Your task to perform on an android device: open device folders in google photos Image 0: 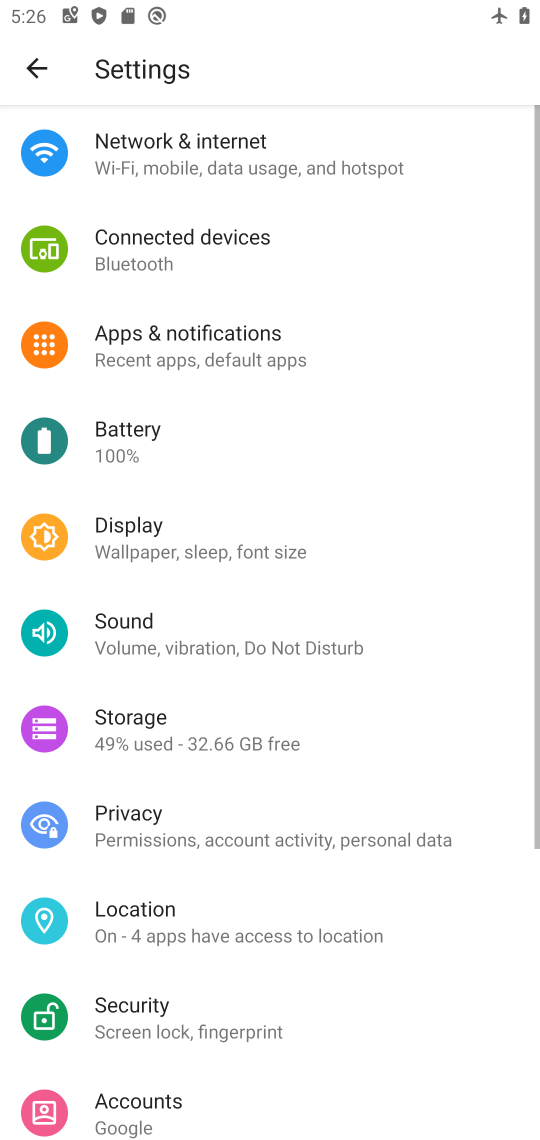
Step 0: press home button
Your task to perform on an android device: open device folders in google photos Image 1: 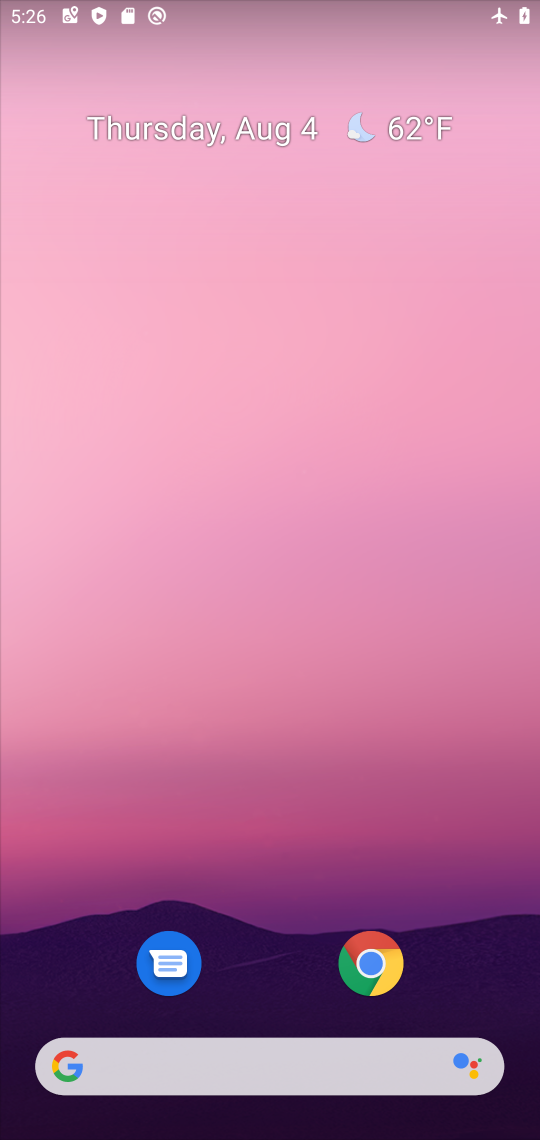
Step 1: drag from (280, 841) to (273, 145)
Your task to perform on an android device: open device folders in google photos Image 2: 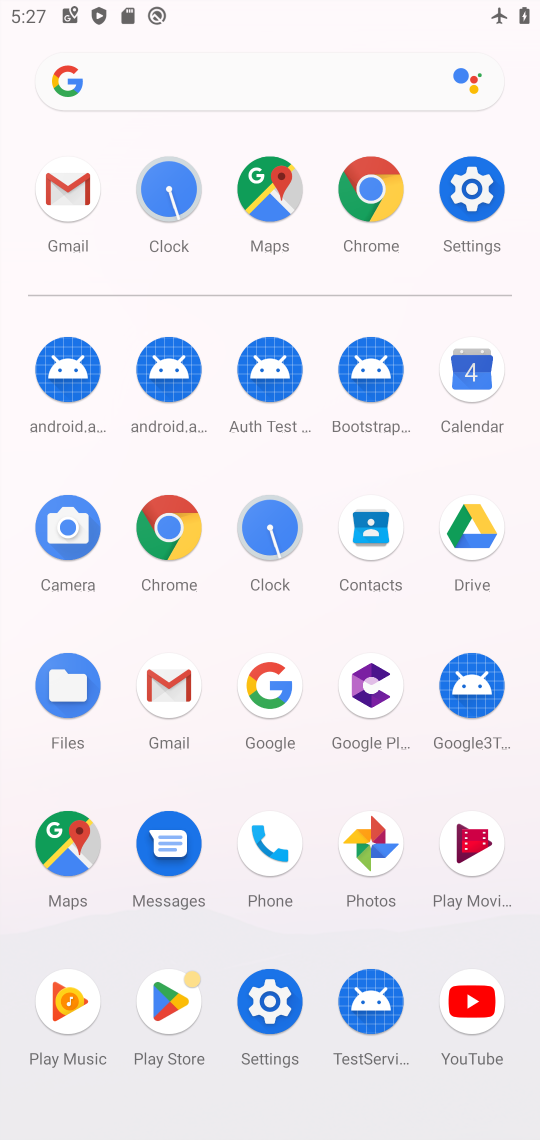
Step 2: click (372, 847)
Your task to perform on an android device: open device folders in google photos Image 3: 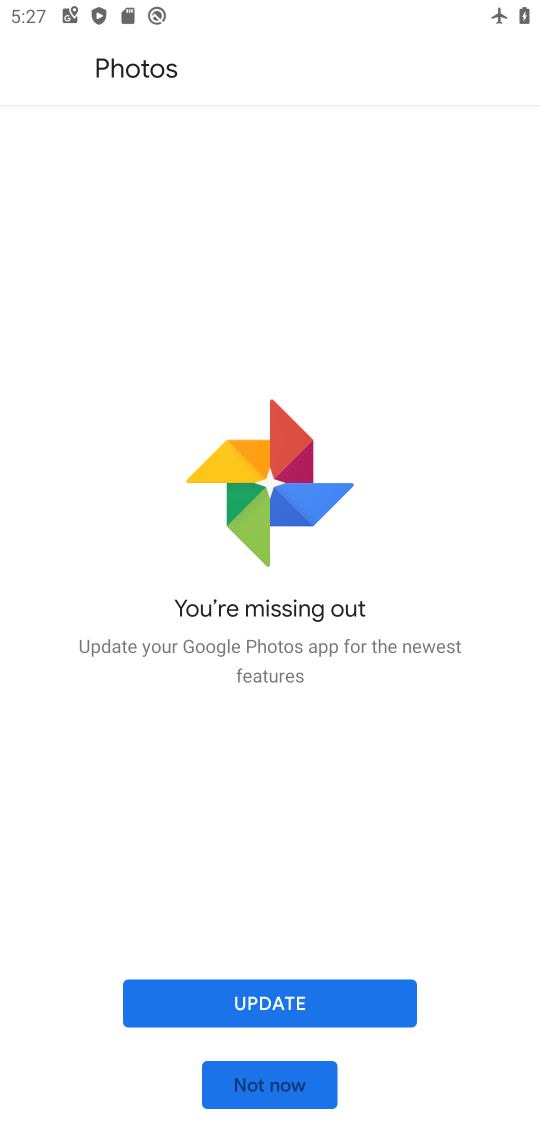
Step 3: click (277, 1006)
Your task to perform on an android device: open device folders in google photos Image 4: 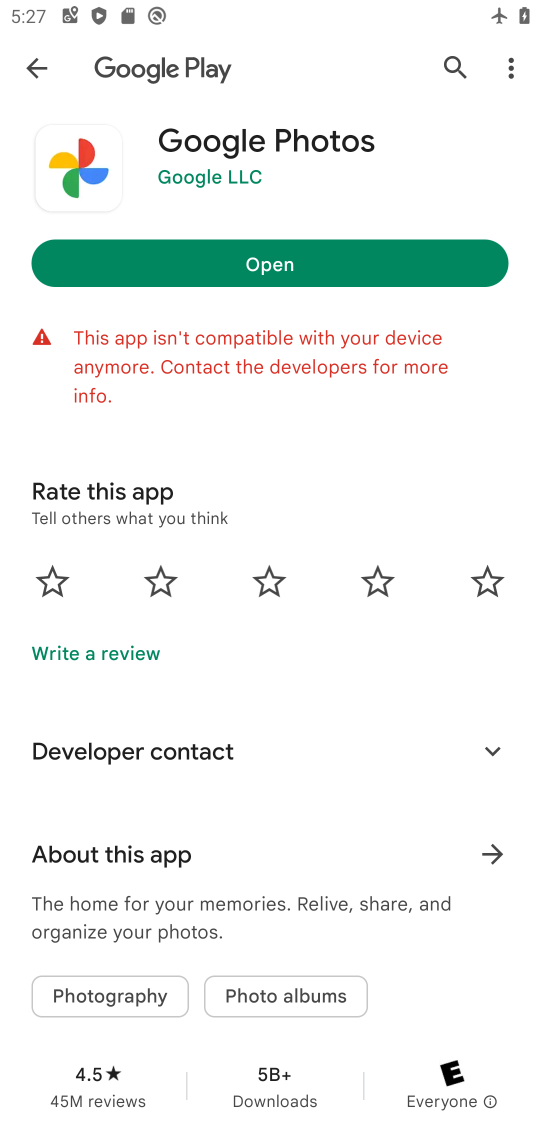
Step 4: click (270, 253)
Your task to perform on an android device: open device folders in google photos Image 5: 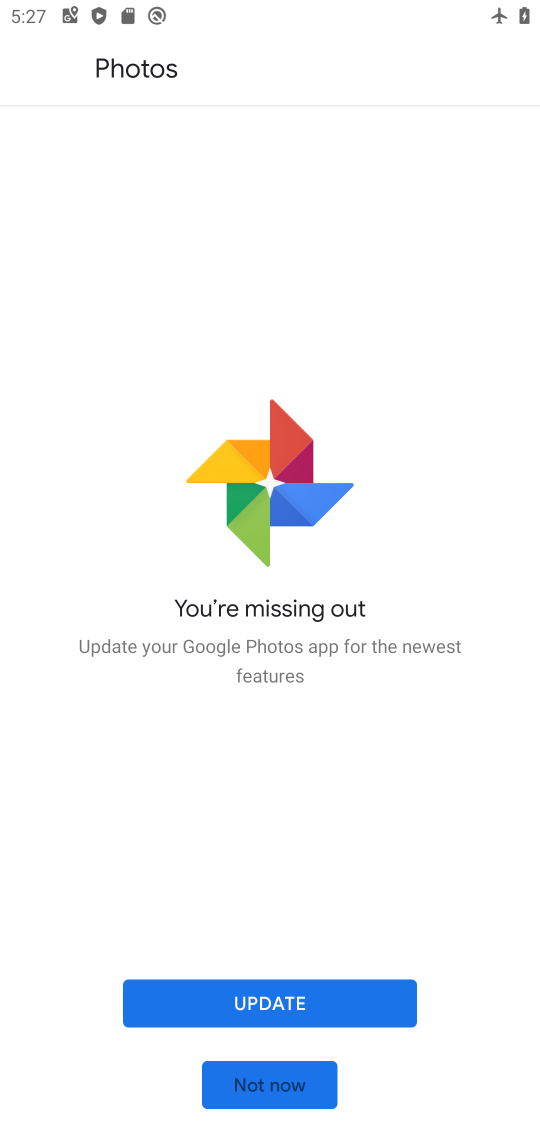
Step 5: click (270, 1077)
Your task to perform on an android device: open device folders in google photos Image 6: 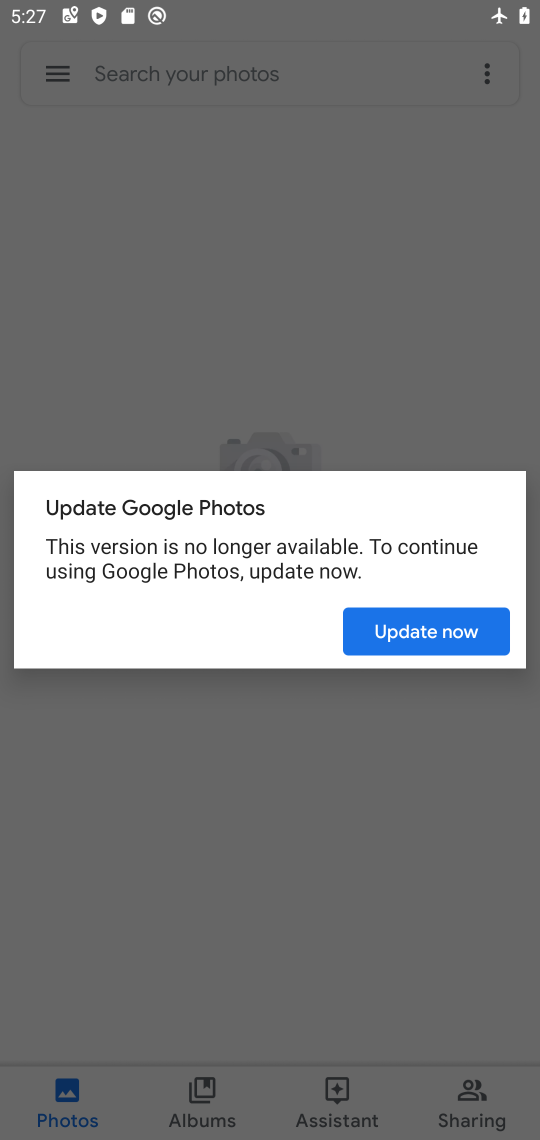
Step 6: click (439, 630)
Your task to perform on an android device: open device folders in google photos Image 7: 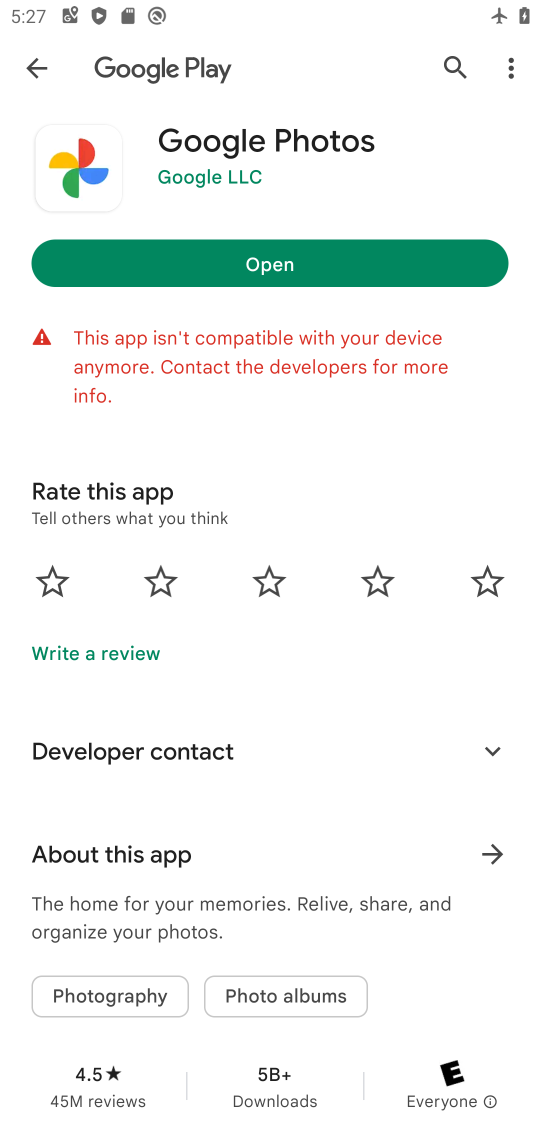
Step 7: task complete